Your task to perform on an android device: Turn on the flashlight Image 0: 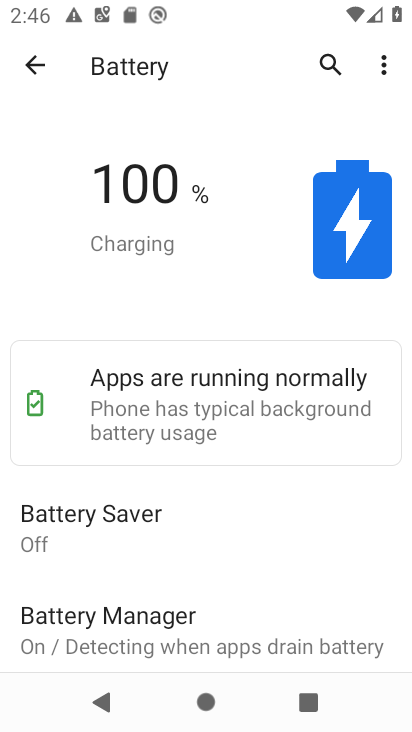
Step 0: press home button
Your task to perform on an android device: Turn on the flashlight Image 1: 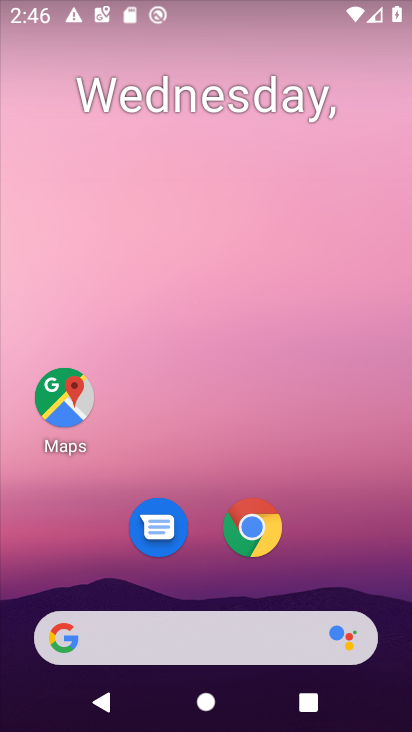
Step 1: drag from (313, 501) to (303, 62)
Your task to perform on an android device: Turn on the flashlight Image 2: 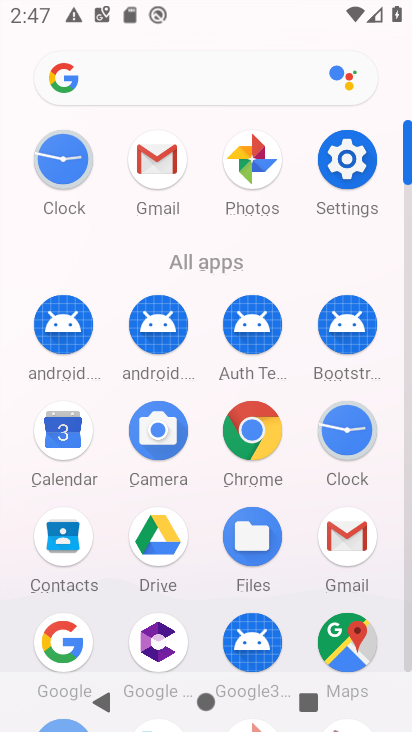
Step 2: click (356, 159)
Your task to perform on an android device: Turn on the flashlight Image 3: 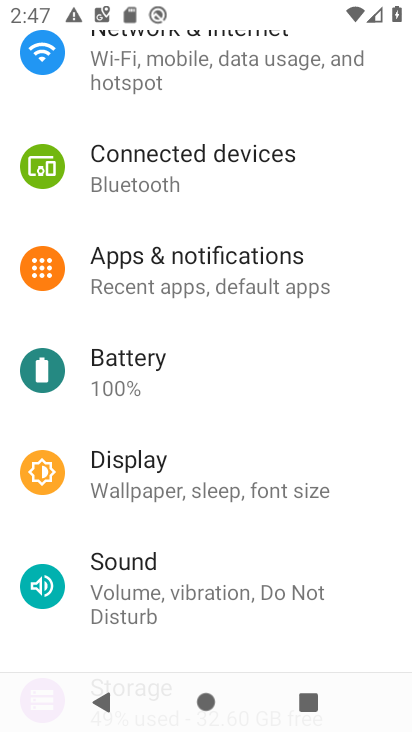
Step 3: drag from (331, 131) to (222, 551)
Your task to perform on an android device: Turn on the flashlight Image 4: 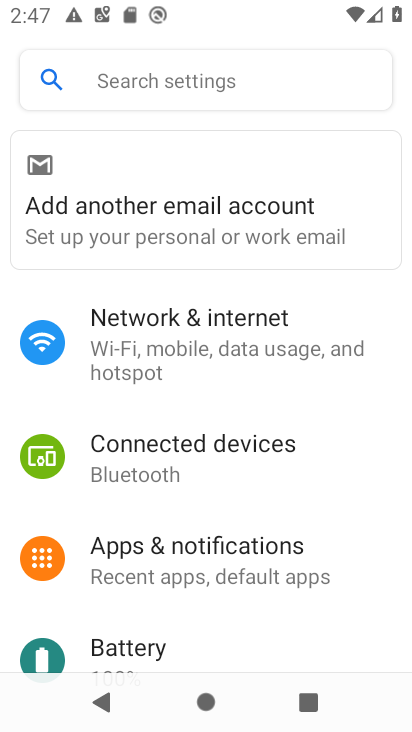
Step 4: drag from (268, 628) to (334, 266)
Your task to perform on an android device: Turn on the flashlight Image 5: 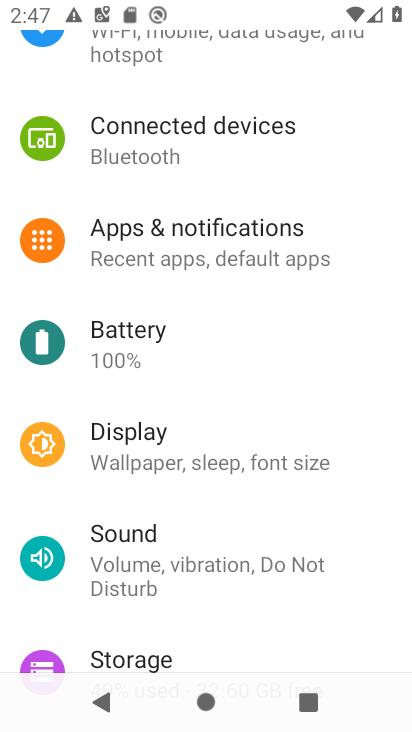
Step 5: click (188, 456)
Your task to perform on an android device: Turn on the flashlight Image 6: 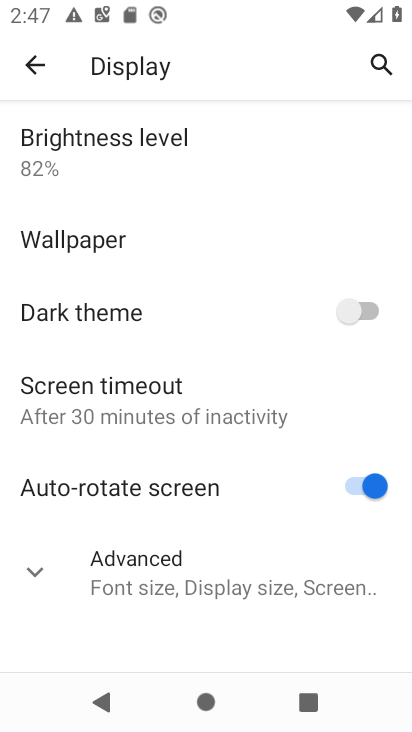
Step 6: click (157, 399)
Your task to perform on an android device: Turn on the flashlight Image 7: 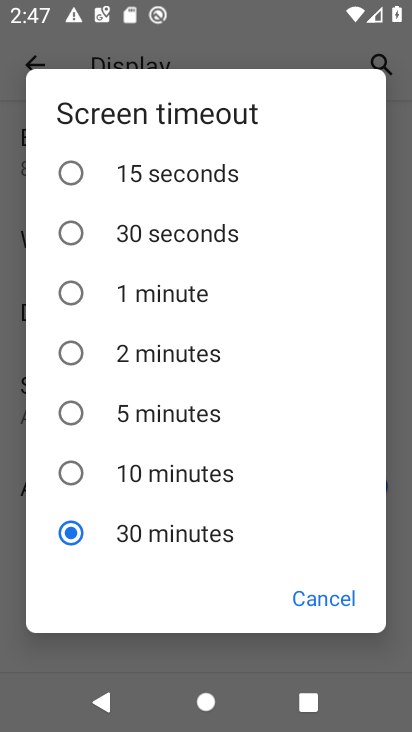
Step 7: task complete